Your task to perform on an android device: snooze an email in the gmail app Image 0: 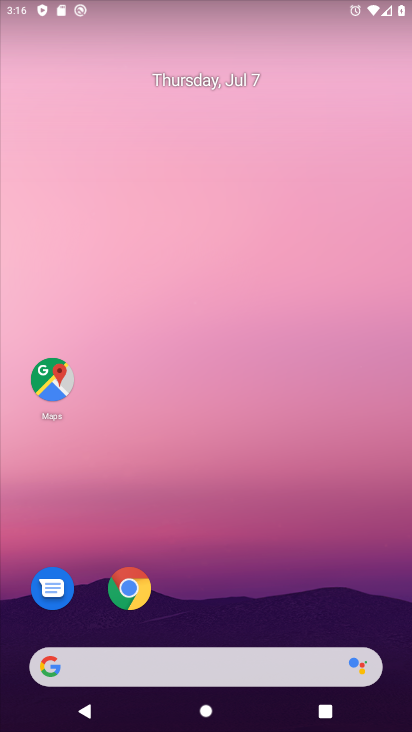
Step 0: drag from (154, 650) to (219, 175)
Your task to perform on an android device: snooze an email in the gmail app Image 1: 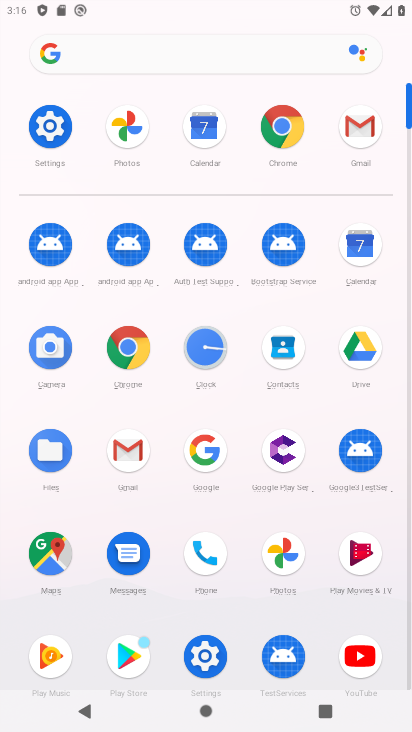
Step 1: click (349, 122)
Your task to perform on an android device: snooze an email in the gmail app Image 2: 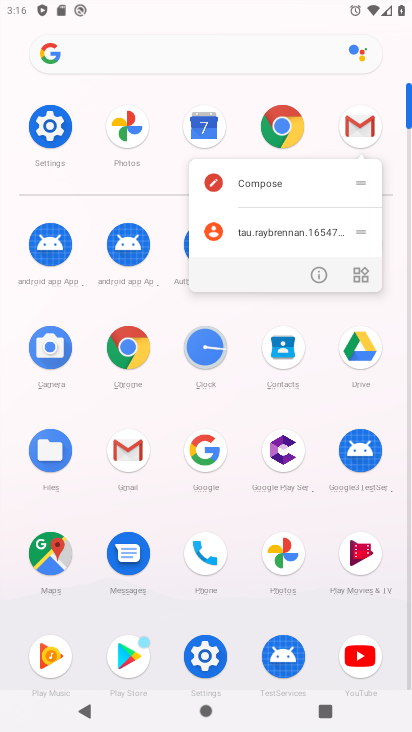
Step 2: click (370, 127)
Your task to perform on an android device: snooze an email in the gmail app Image 3: 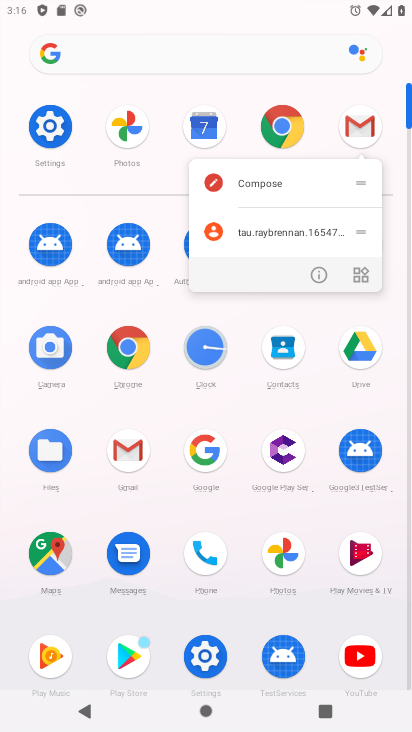
Step 3: click (365, 127)
Your task to perform on an android device: snooze an email in the gmail app Image 4: 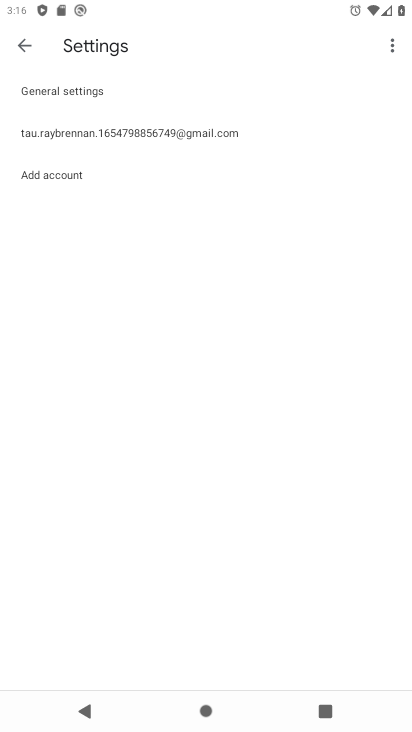
Step 4: click (22, 46)
Your task to perform on an android device: snooze an email in the gmail app Image 5: 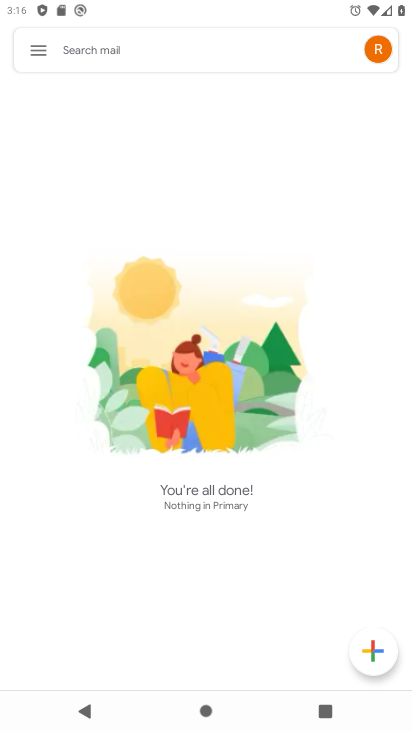
Step 5: click (36, 48)
Your task to perform on an android device: snooze an email in the gmail app Image 6: 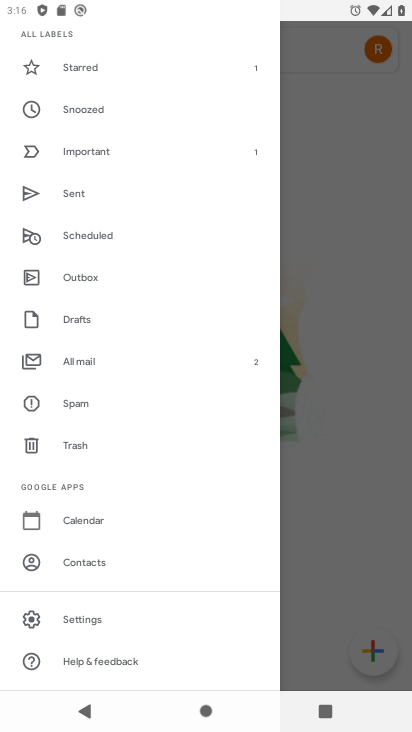
Step 6: click (81, 355)
Your task to perform on an android device: snooze an email in the gmail app Image 7: 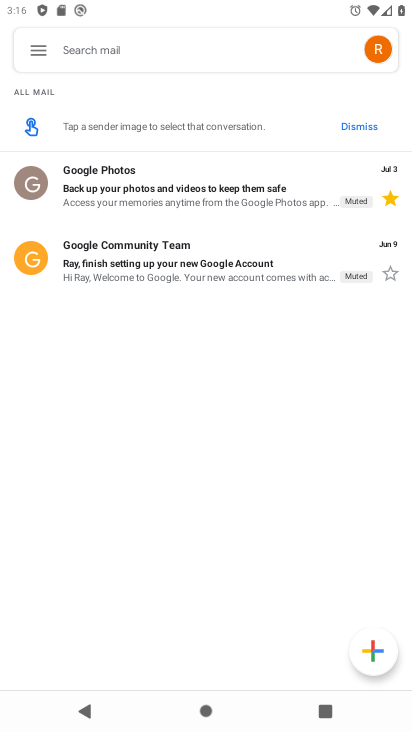
Step 7: click (184, 264)
Your task to perform on an android device: snooze an email in the gmail app Image 8: 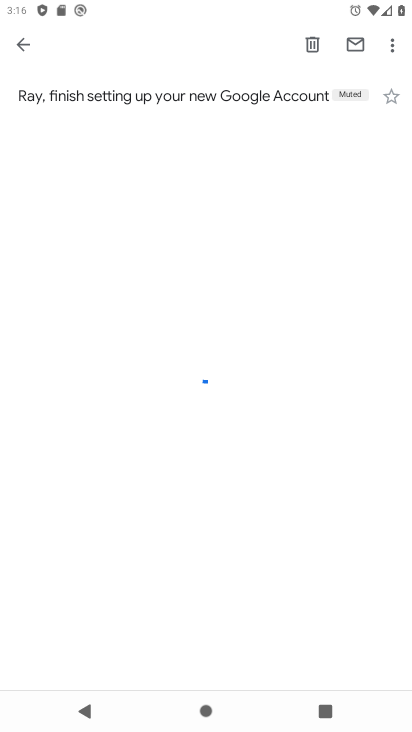
Step 8: click (394, 46)
Your task to perform on an android device: snooze an email in the gmail app Image 9: 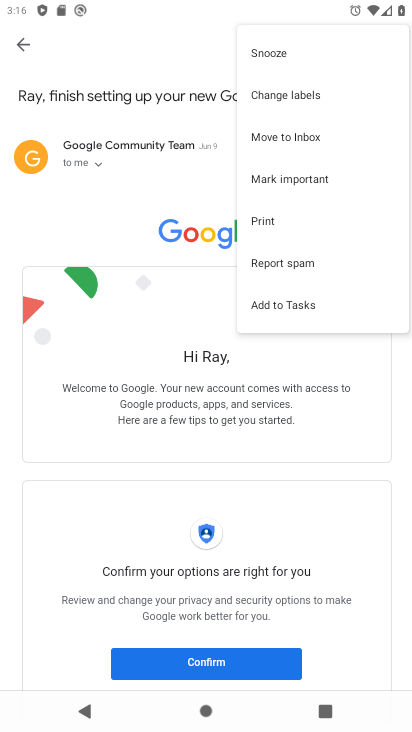
Step 9: click (270, 55)
Your task to perform on an android device: snooze an email in the gmail app Image 10: 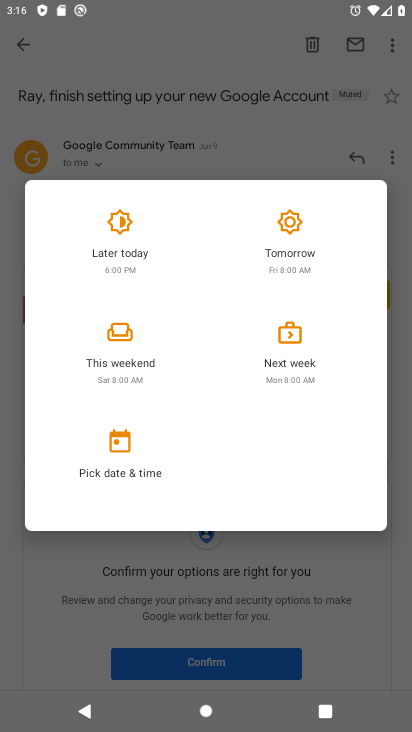
Step 10: click (299, 354)
Your task to perform on an android device: snooze an email in the gmail app Image 11: 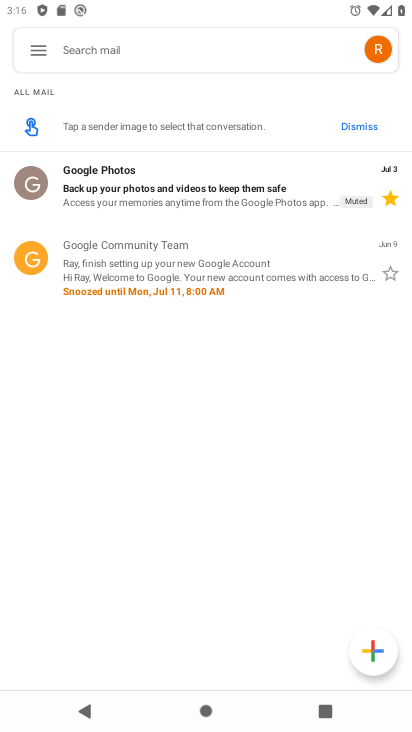
Step 11: task complete